Your task to perform on an android device: set the stopwatch Image 0: 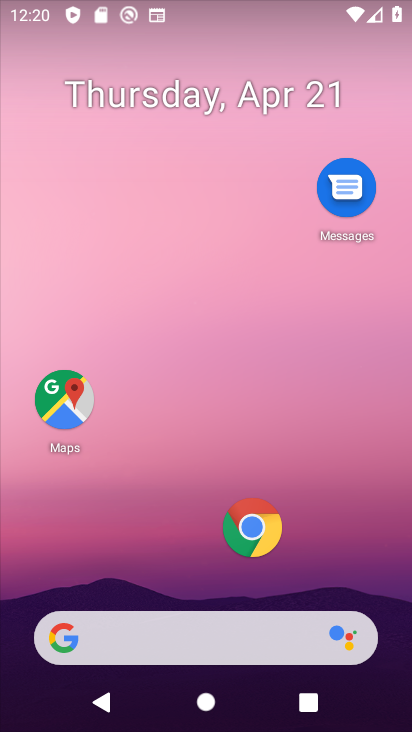
Step 0: drag from (144, 581) to (295, 61)
Your task to perform on an android device: set the stopwatch Image 1: 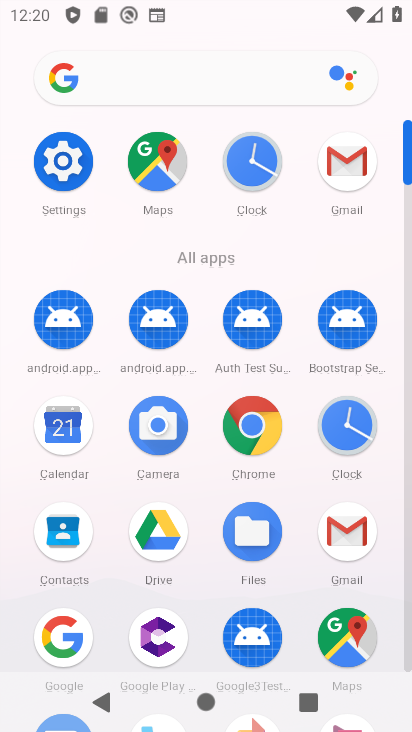
Step 1: click (249, 170)
Your task to perform on an android device: set the stopwatch Image 2: 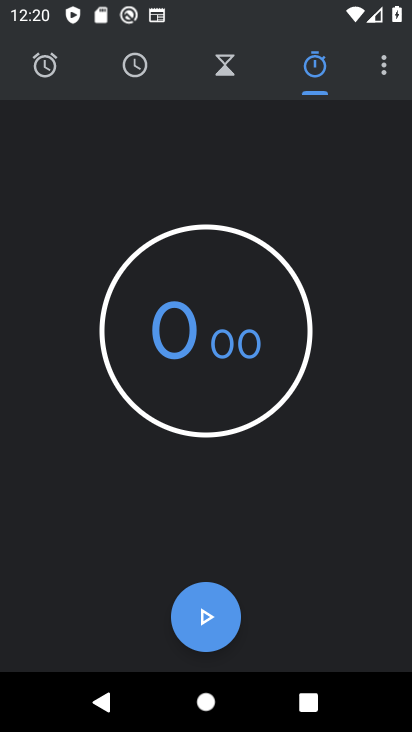
Step 2: click (188, 614)
Your task to perform on an android device: set the stopwatch Image 3: 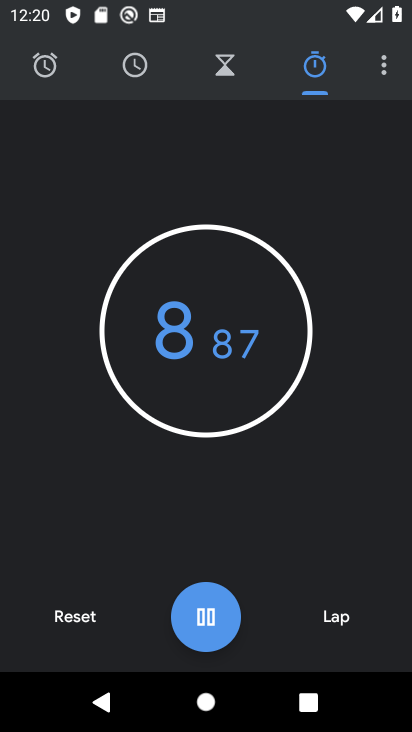
Step 3: task complete